Your task to perform on an android device: check data usage Image 0: 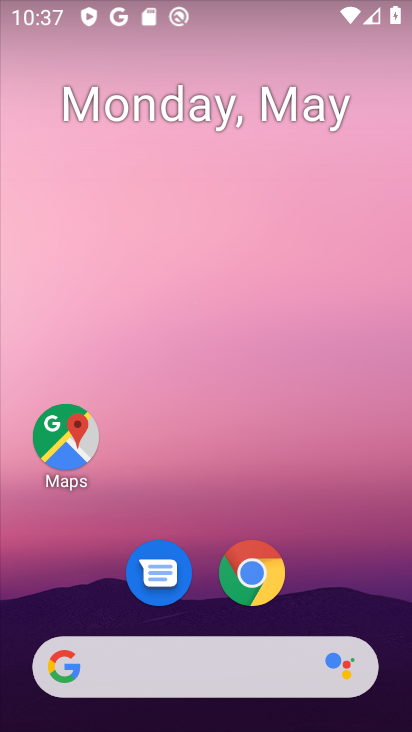
Step 0: drag from (215, 522) to (194, 85)
Your task to perform on an android device: check data usage Image 1: 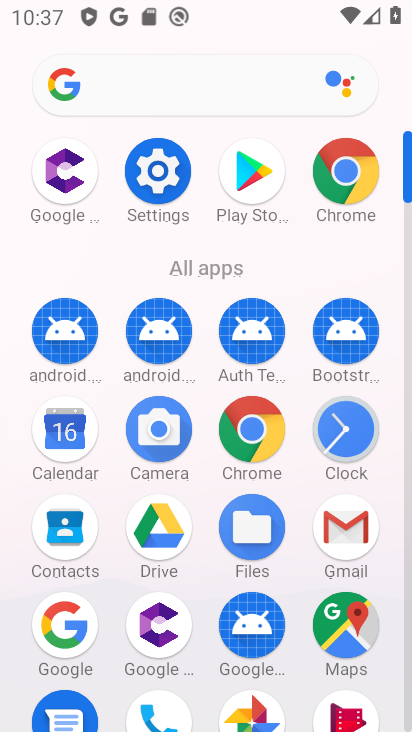
Step 1: click (164, 168)
Your task to perform on an android device: check data usage Image 2: 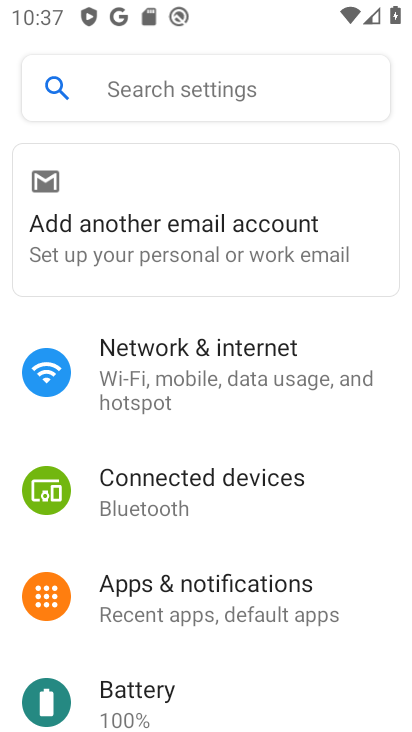
Step 2: click (221, 390)
Your task to perform on an android device: check data usage Image 3: 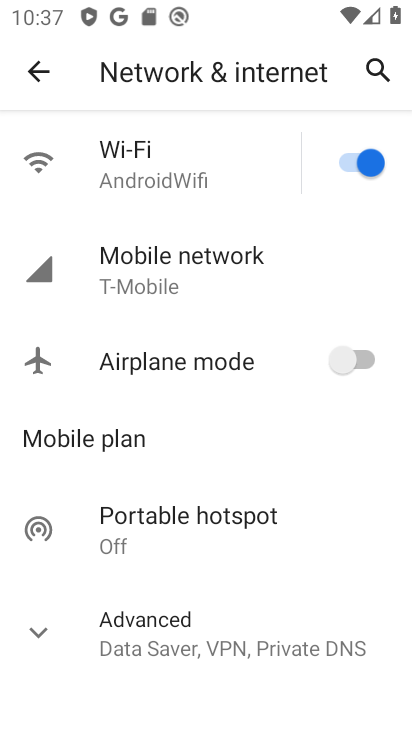
Step 3: click (164, 272)
Your task to perform on an android device: check data usage Image 4: 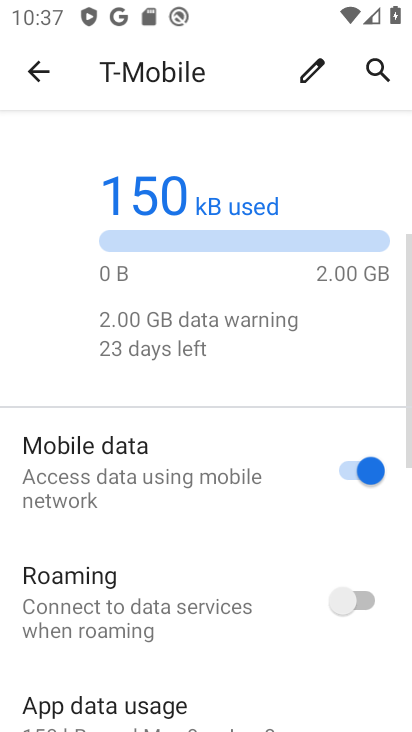
Step 4: drag from (156, 689) to (248, 222)
Your task to perform on an android device: check data usage Image 5: 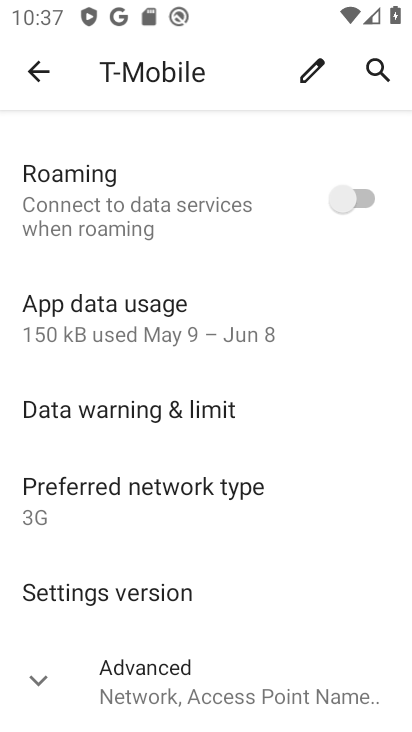
Step 5: click (145, 331)
Your task to perform on an android device: check data usage Image 6: 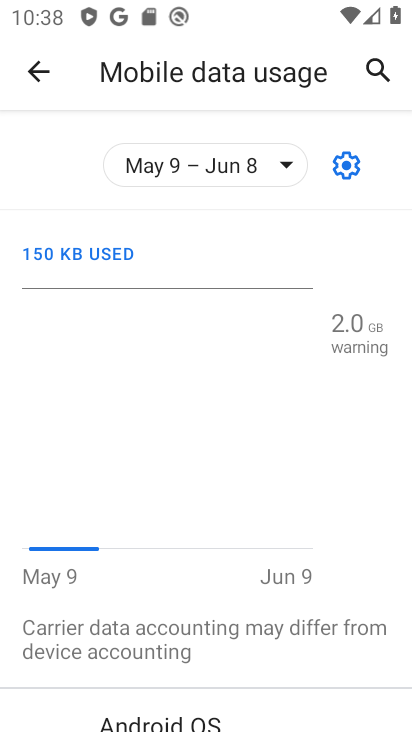
Step 6: task complete